Your task to perform on an android device: Go to accessibility settings Image 0: 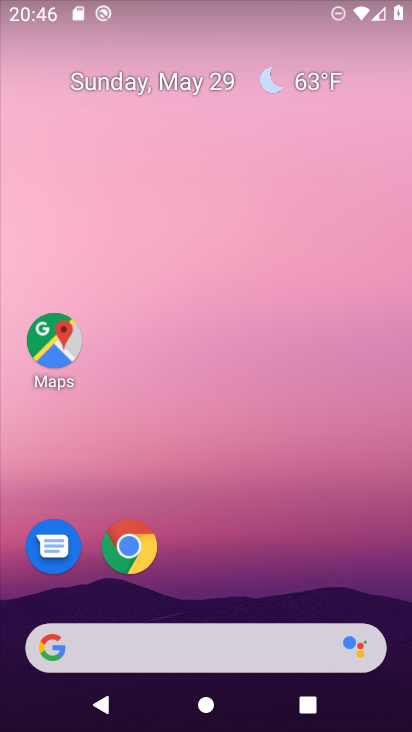
Step 0: drag from (372, 130) to (402, 54)
Your task to perform on an android device: Go to accessibility settings Image 1: 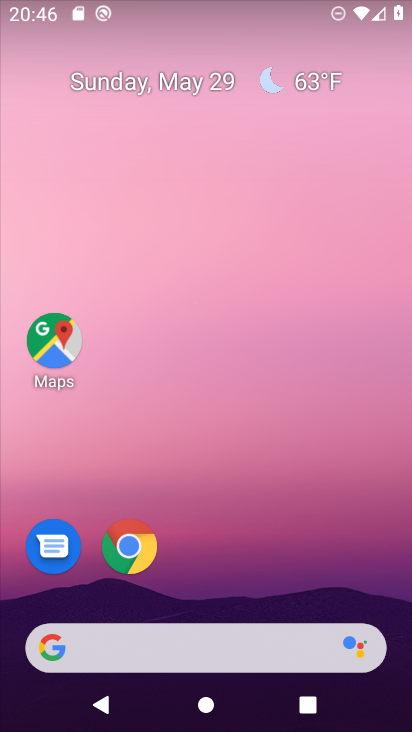
Step 1: drag from (196, 644) to (274, 108)
Your task to perform on an android device: Go to accessibility settings Image 2: 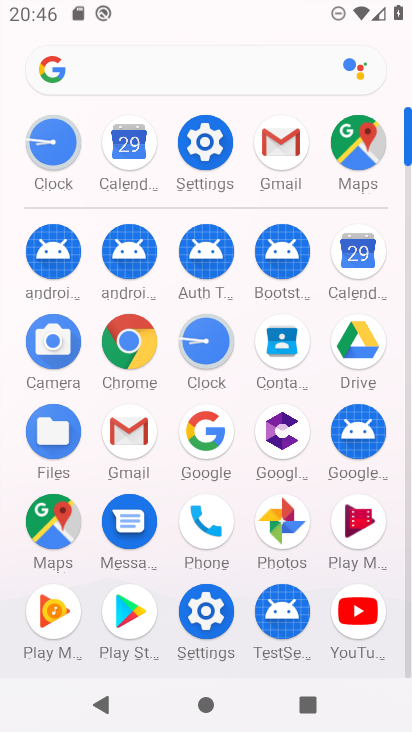
Step 2: click (213, 141)
Your task to perform on an android device: Go to accessibility settings Image 3: 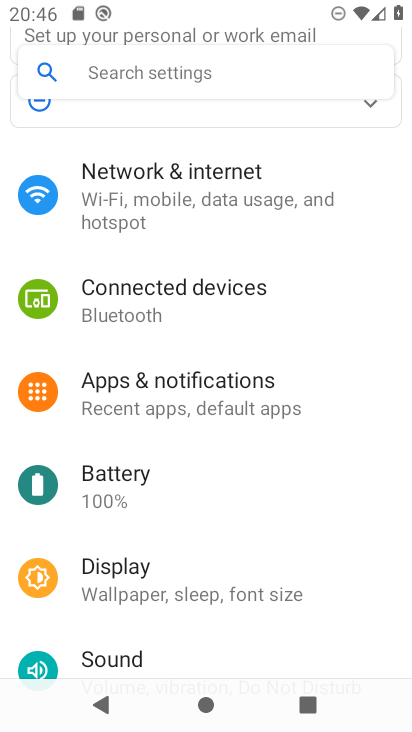
Step 3: drag from (263, 436) to (304, 92)
Your task to perform on an android device: Go to accessibility settings Image 4: 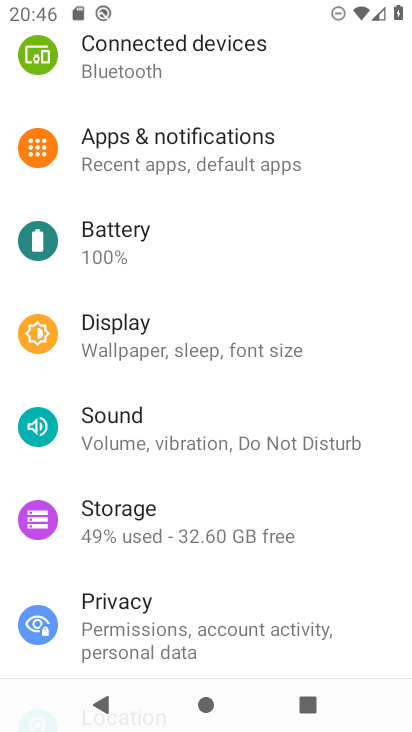
Step 4: drag from (264, 594) to (310, 77)
Your task to perform on an android device: Go to accessibility settings Image 5: 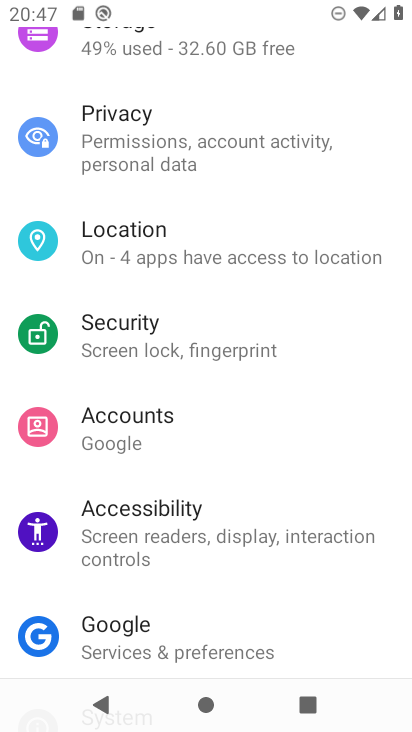
Step 5: drag from (230, 624) to (354, 107)
Your task to perform on an android device: Go to accessibility settings Image 6: 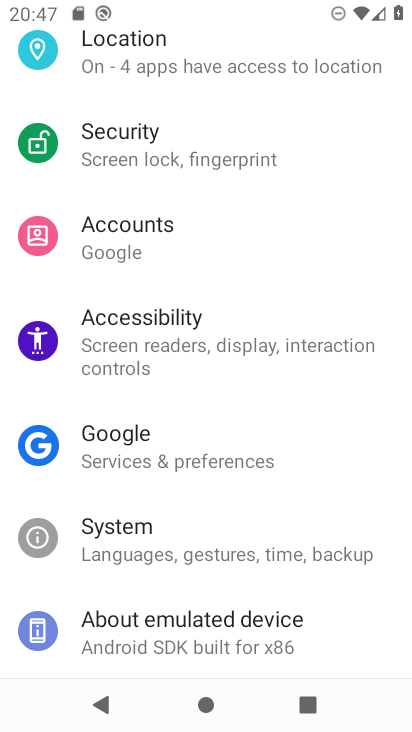
Step 6: click (154, 335)
Your task to perform on an android device: Go to accessibility settings Image 7: 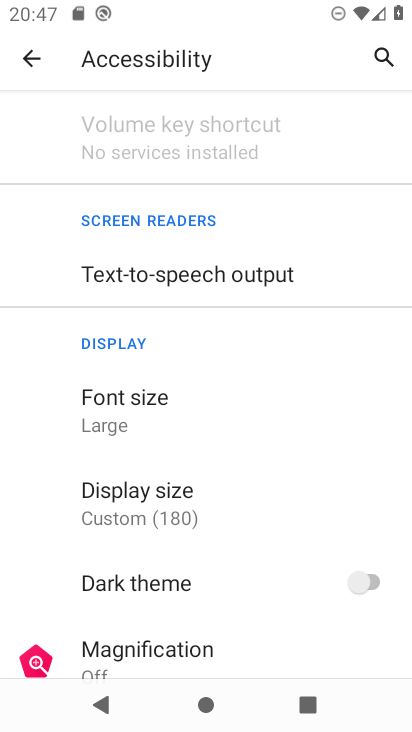
Step 7: task complete